Your task to perform on an android device: delete location history Image 0: 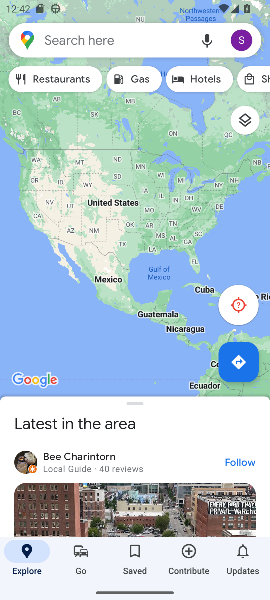
Step 0: click (238, 37)
Your task to perform on an android device: delete location history Image 1: 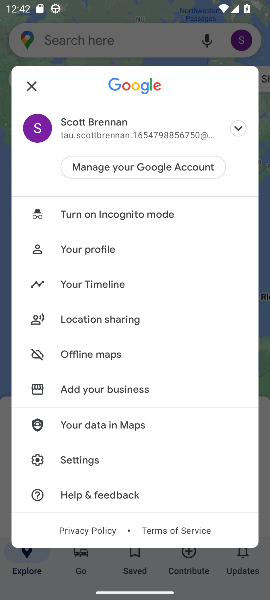
Step 1: click (121, 284)
Your task to perform on an android device: delete location history Image 2: 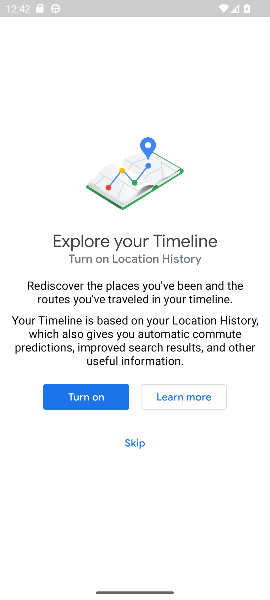
Step 2: click (135, 443)
Your task to perform on an android device: delete location history Image 3: 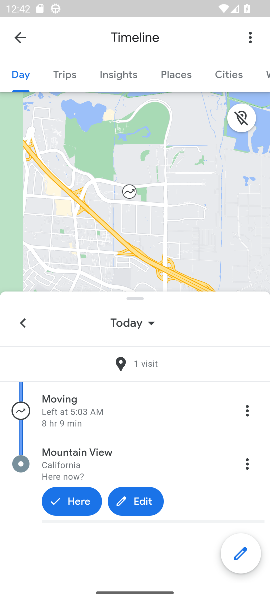
Step 3: click (249, 42)
Your task to perform on an android device: delete location history Image 4: 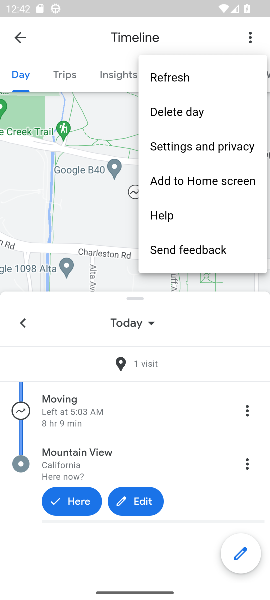
Step 4: click (201, 140)
Your task to perform on an android device: delete location history Image 5: 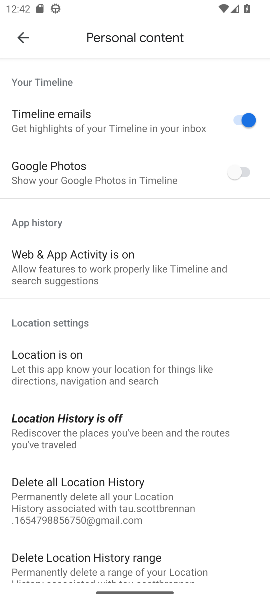
Step 5: click (77, 492)
Your task to perform on an android device: delete location history Image 6: 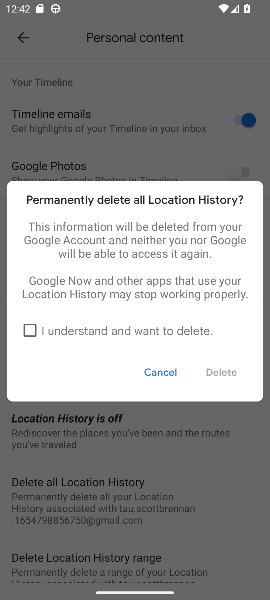
Step 6: click (26, 327)
Your task to perform on an android device: delete location history Image 7: 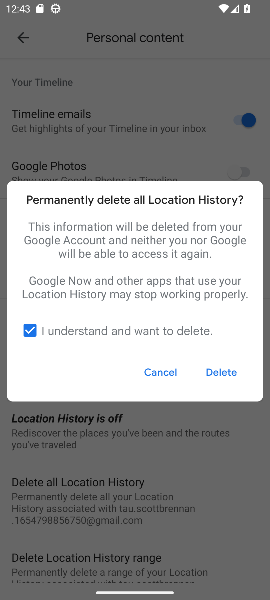
Step 7: click (211, 366)
Your task to perform on an android device: delete location history Image 8: 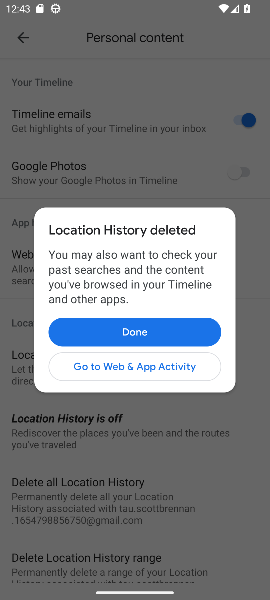
Step 8: click (144, 330)
Your task to perform on an android device: delete location history Image 9: 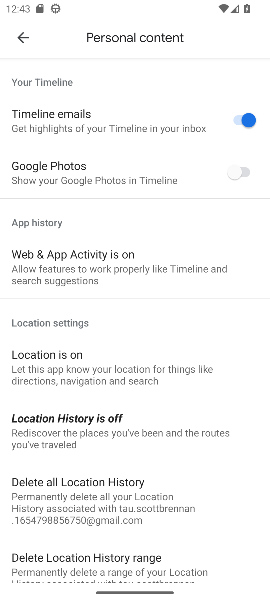
Step 9: task complete